Your task to perform on an android device: turn off translation in the chrome app Image 0: 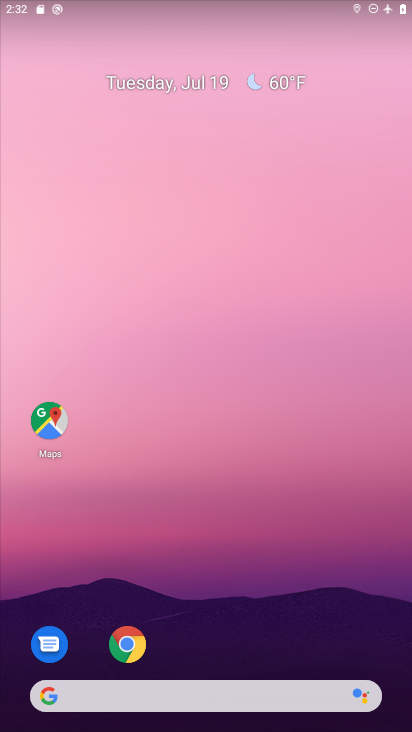
Step 0: drag from (207, 661) to (171, 96)
Your task to perform on an android device: turn off translation in the chrome app Image 1: 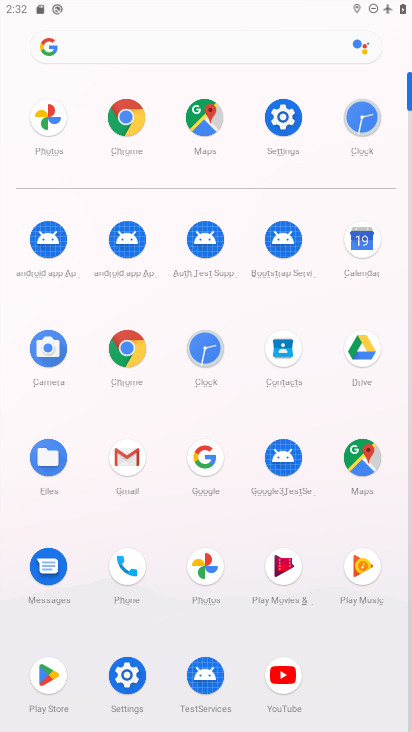
Step 1: click (130, 364)
Your task to perform on an android device: turn off translation in the chrome app Image 2: 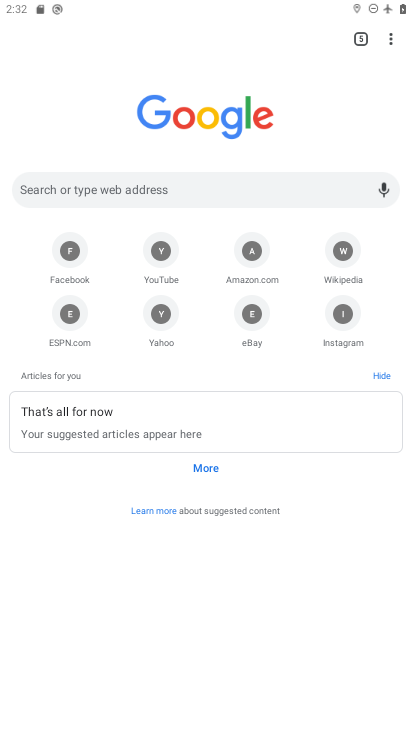
Step 2: drag from (390, 41) to (253, 326)
Your task to perform on an android device: turn off translation in the chrome app Image 3: 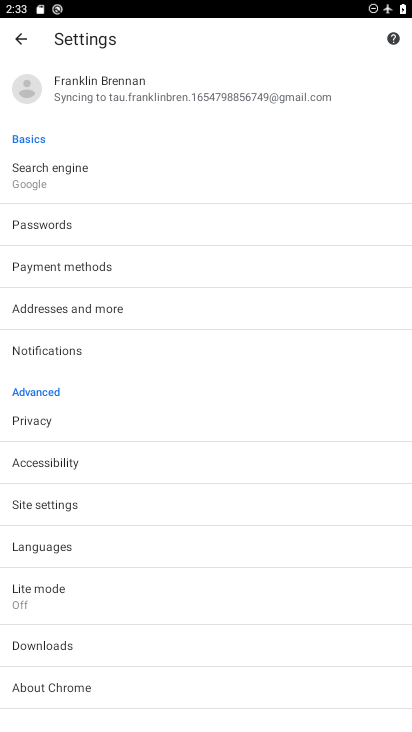
Step 3: click (68, 542)
Your task to perform on an android device: turn off translation in the chrome app Image 4: 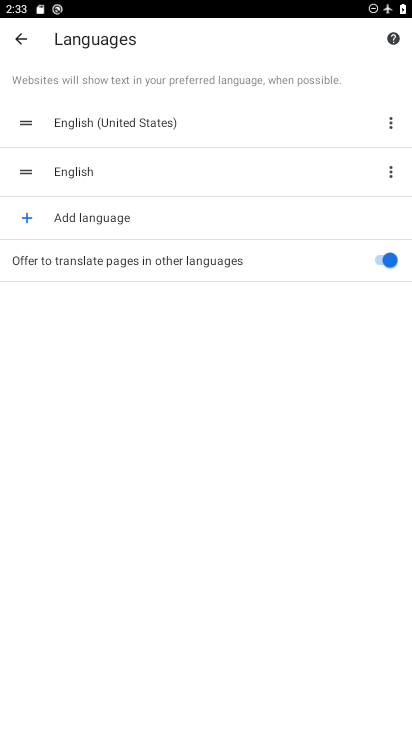
Step 4: click (384, 268)
Your task to perform on an android device: turn off translation in the chrome app Image 5: 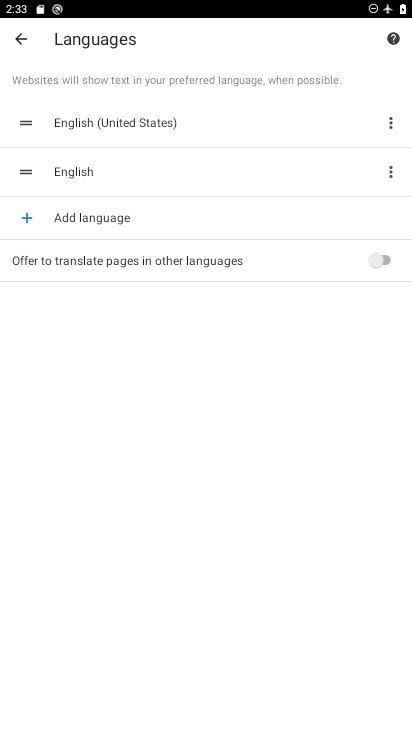
Step 5: task complete